Your task to perform on an android device: open chrome privacy settings Image 0: 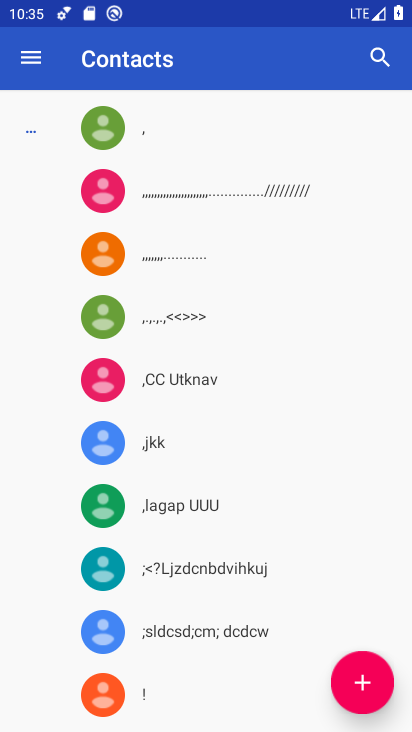
Step 0: press home button
Your task to perform on an android device: open chrome privacy settings Image 1: 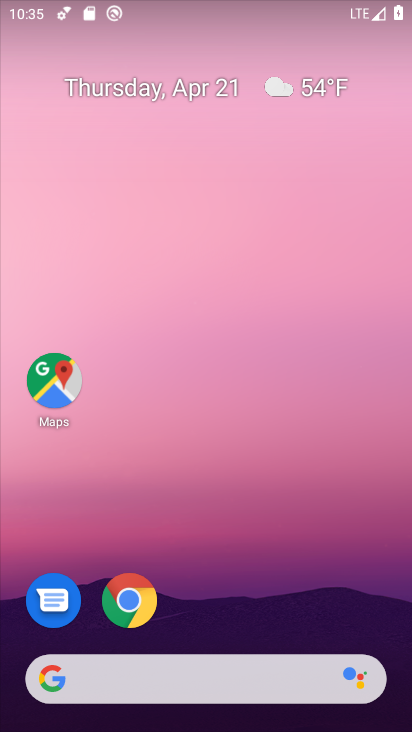
Step 1: click (143, 604)
Your task to perform on an android device: open chrome privacy settings Image 2: 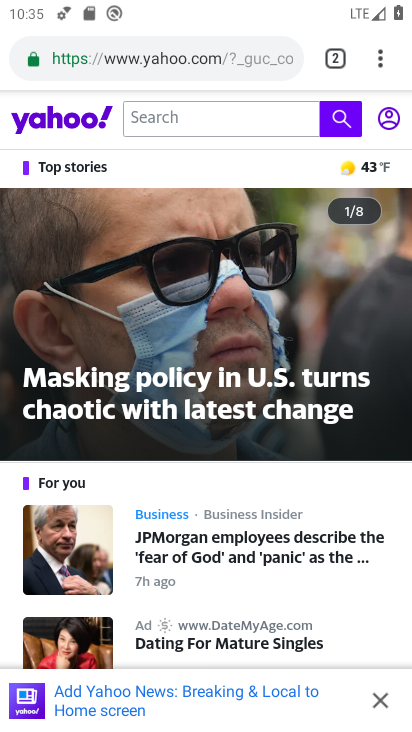
Step 2: click (380, 55)
Your task to perform on an android device: open chrome privacy settings Image 3: 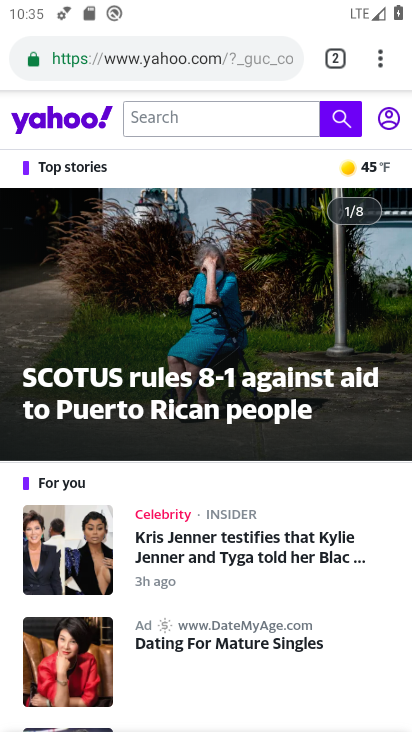
Step 3: click (376, 59)
Your task to perform on an android device: open chrome privacy settings Image 4: 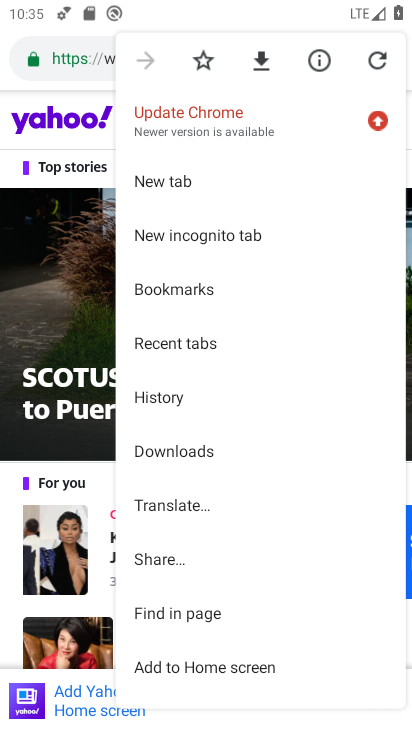
Step 4: drag from (251, 614) to (271, 217)
Your task to perform on an android device: open chrome privacy settings Image 5: 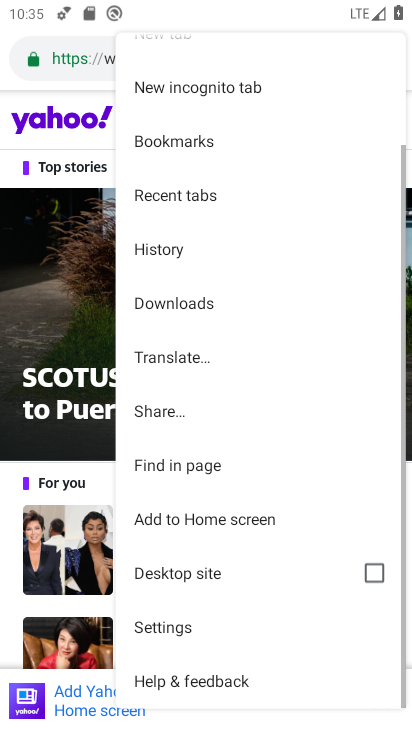
Step 5: click (202, 623)
Your task to perform on an android device: open chrome privacy settings Image 6: 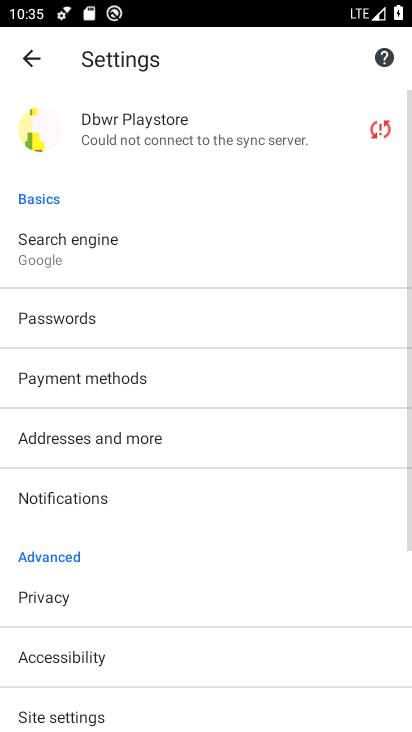
Step 6: drag from (229, 583) to (229, 531)
Your task to perform on an android device: open chrome privacy settings Image 7: 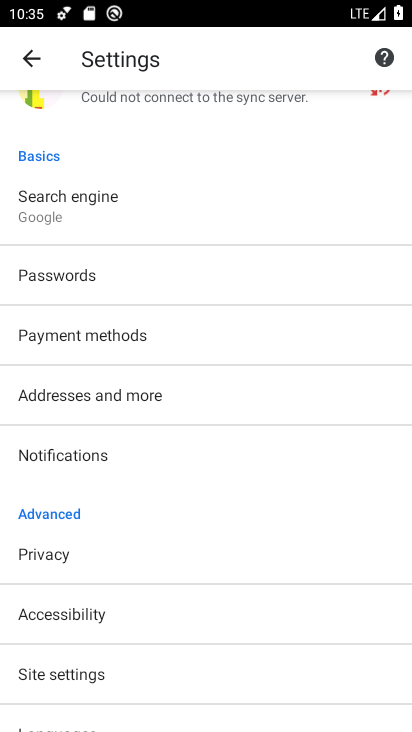
Step 7: click (214, 556)
Your task to perform on an android device: open chrome privacy settings Image 8: 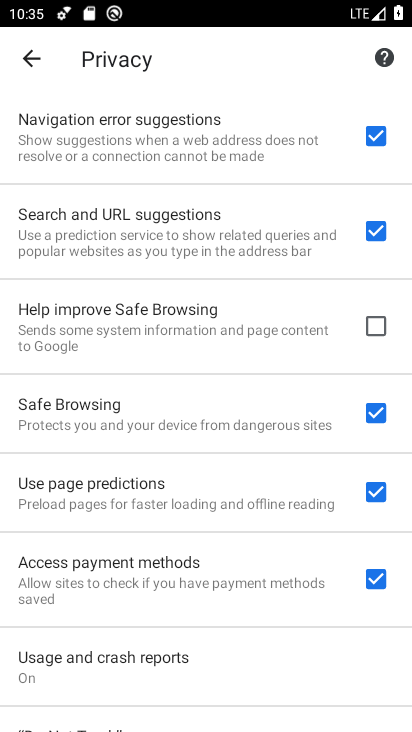
Step 8: task complete